Your task to perform on an android device: toggle translation in the chrome app Image 0: 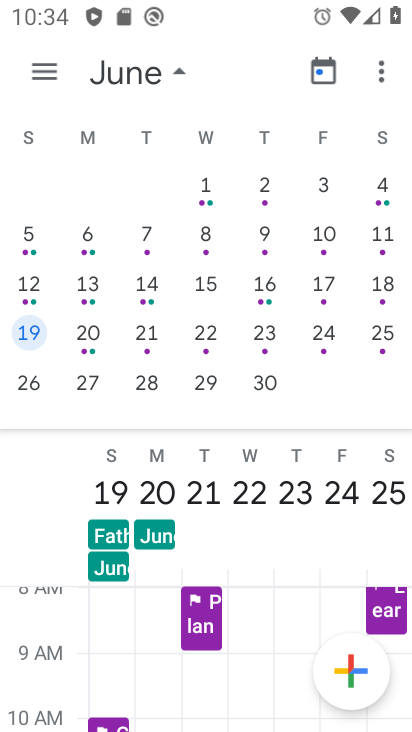
Step 0: press home button
Your task to perform on an android device: toggle translation in the chrome app Image 1: 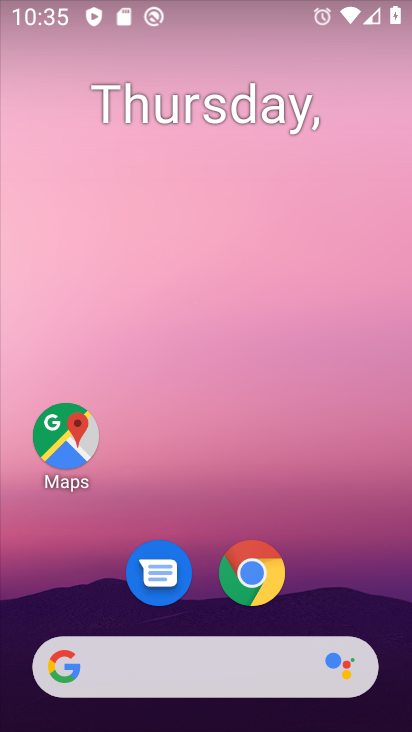
Step 1: click (246, 580)
Your task to perform on an android device: toggle translation in the chrome app Image 2: 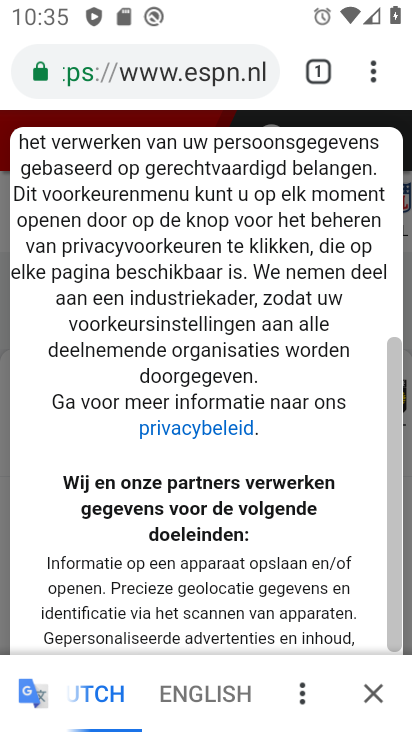
Step 2: click (363, 64)
Your task to perform on an android device: toggle translation in the chrome app Image 3: 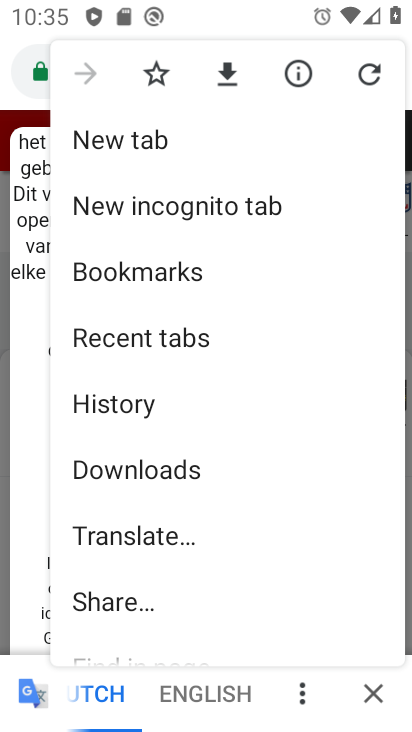
Step 3: drag from (173, 579) to (269, 233)
Your task to perform on an android device: toggle translation in the chrome app Image 4: 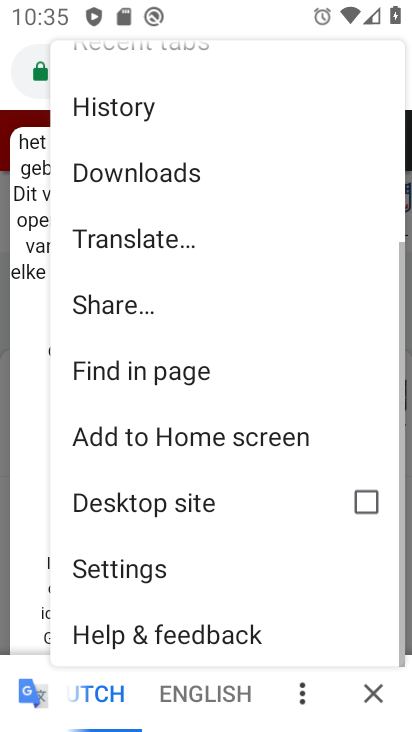
Step 4: click (136, 582)
Your task to perform on an android device: toggle translation in the chrome app Image 5: 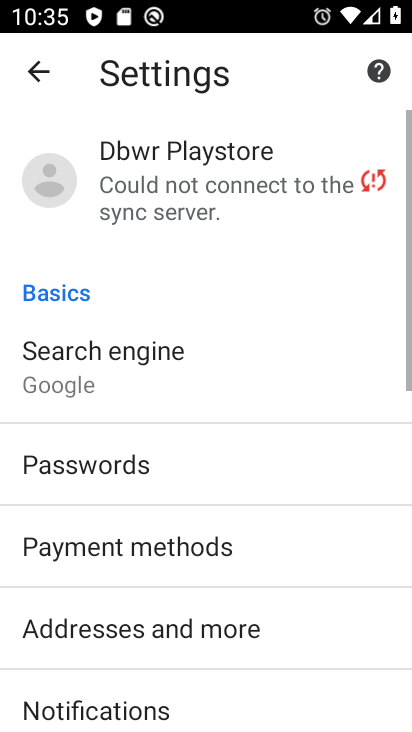
Step 5: drag from (159, 556) to (308, 169)
Your task to perform on an android device: toggle translation in the chrome app Image 6: 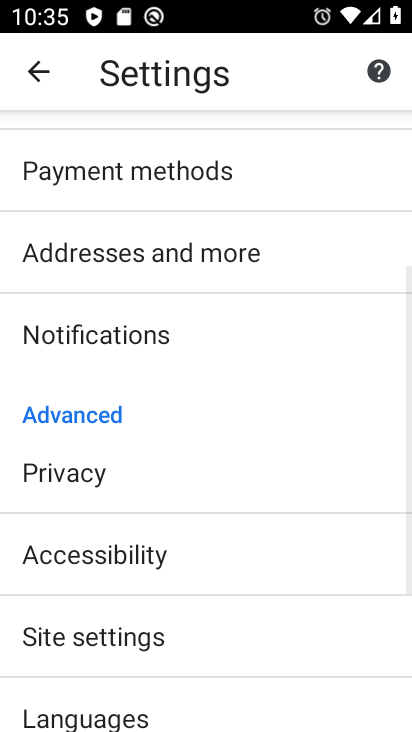
Step 6: drag from (113, 549) to (240, 238)
Your task to perform on an android device: toggle translation in the chrome app Image 7: 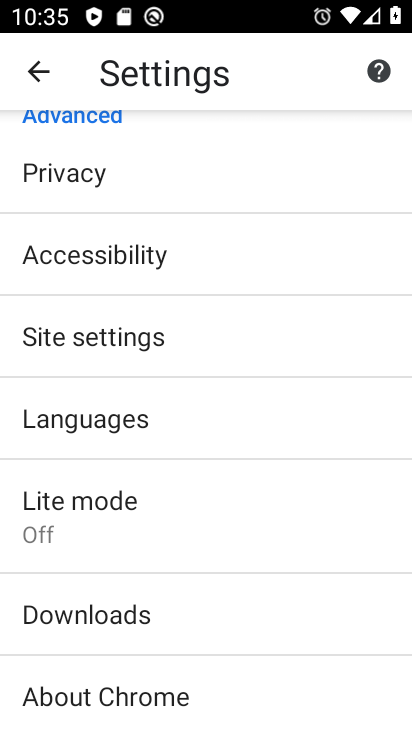
Step 7: click (142, 427)
Your task to perform on an android device: toggle translation in the chrome app Image 8: 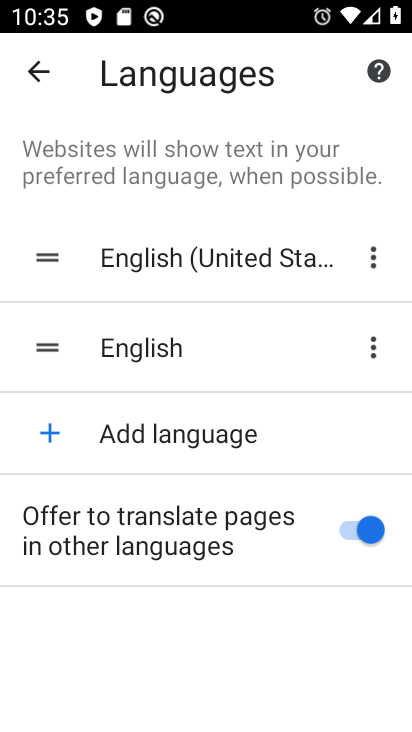
Step 8: click (353, 538)
Your task to perform on an android device: toggle translation in the chrome app Image 9: 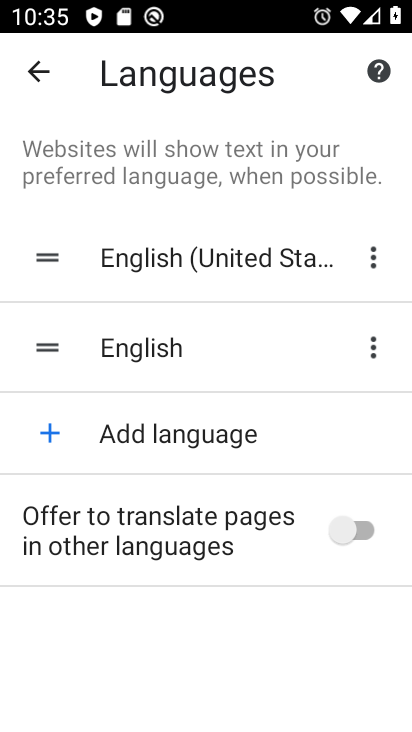
Step 9: task complete